Your task to perform on an android device: turn on improve location accuracy Image 0: 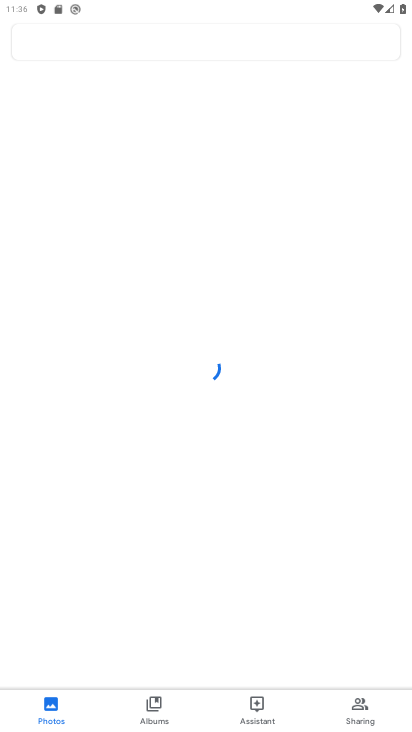
Step 0: press home button
Your task to perform on an android device: turn on improve location accuracy Image 1: 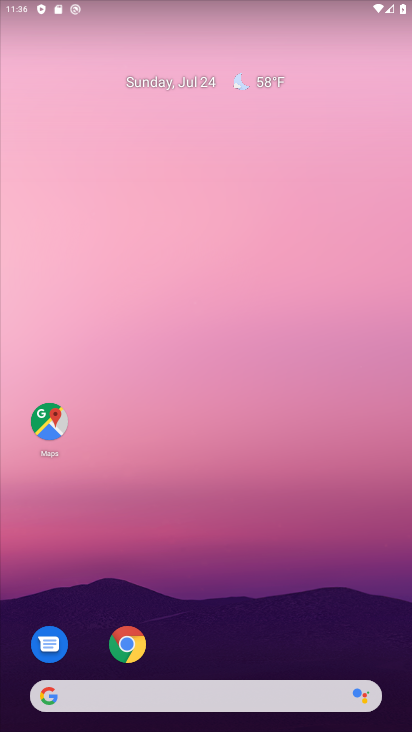
Step 1: drag from (250, 624) to (250, 186)
Your task to perform on an android device: turn on improve location accuracy Image 2: 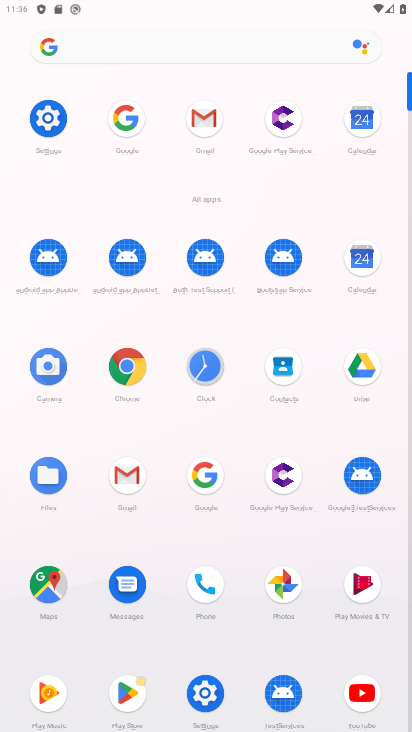
Step 2: click (42, 110)
Your task to perform on an android device: turn on improve location accuracy Image 3: 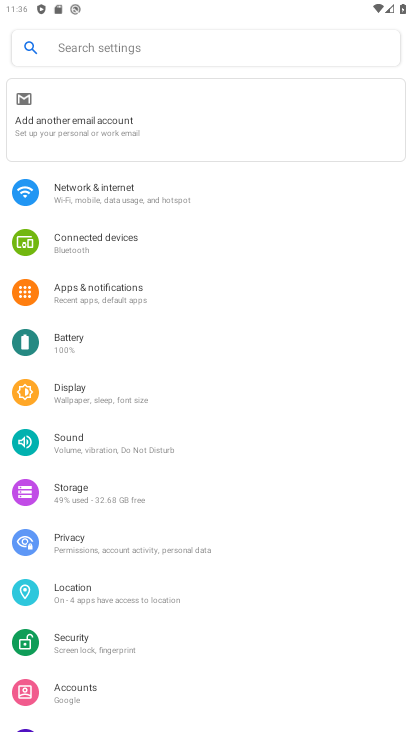
Step 3: click (79, 602)
Your task to perform on an android device: turn on improve location accuracy Image 4: 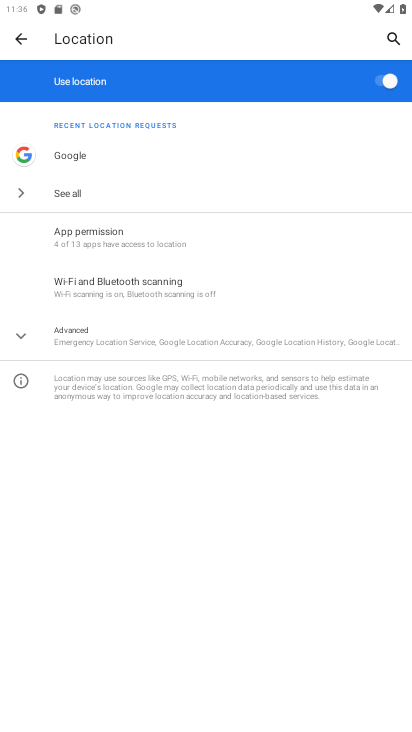
Step 4: click (176, 334)
Your task to perform on an android device: turn on improve location accuracy Image 5: 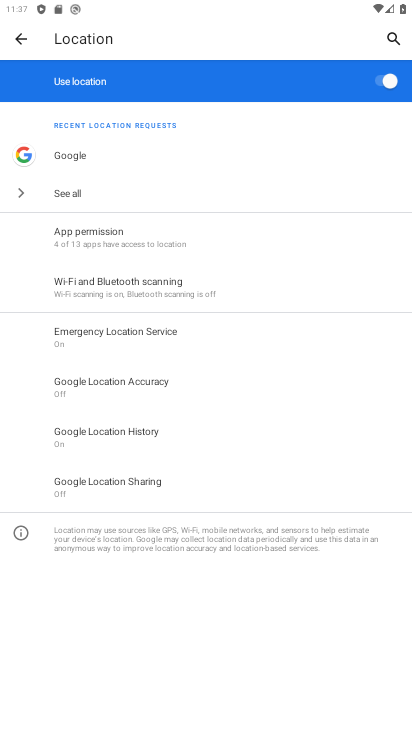
Step 5: click (178, 388)
Your task to perform on an android device: turn on improve location accuracy Image 6: 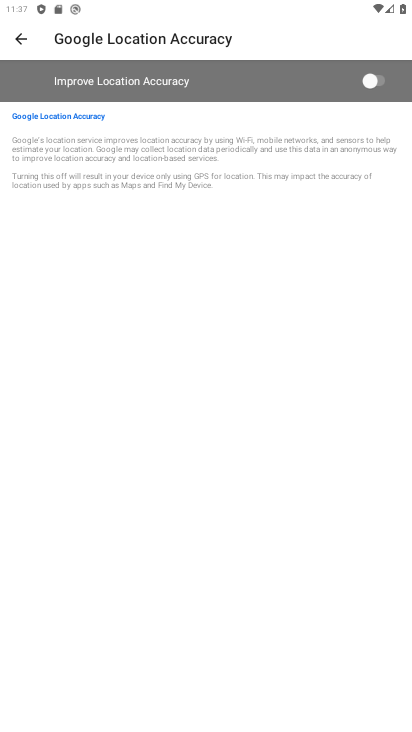
Step 6: click (379, 62)
Your task to perform on an android device: turn on improve location accuracy Image 7: 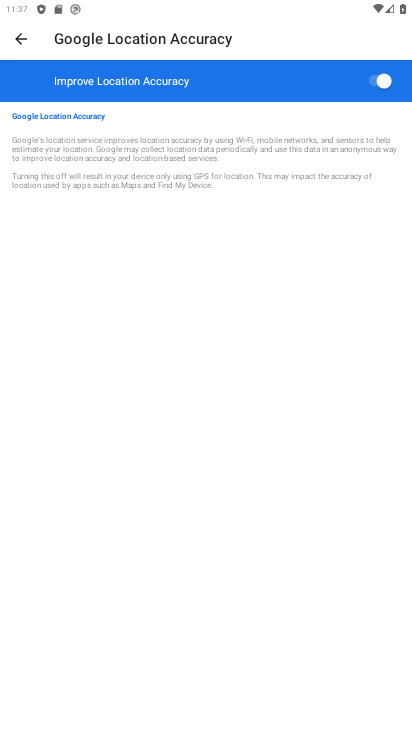
Step 7: task complete